Your task to perform on an android device: check battery use Image 0: 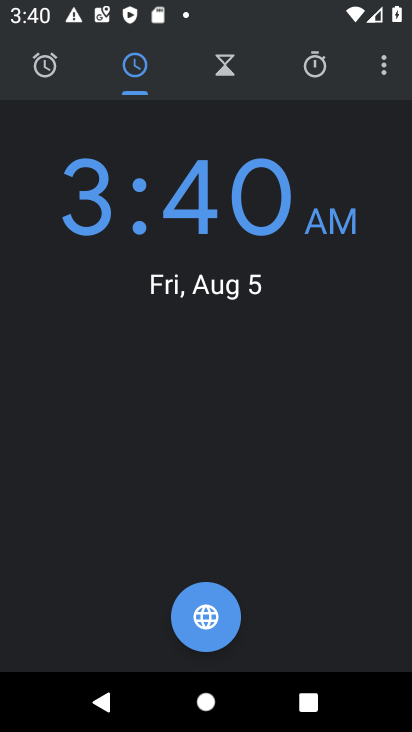
Step 0: press home button
Your task to perform on an android device: check battery use Image 1: 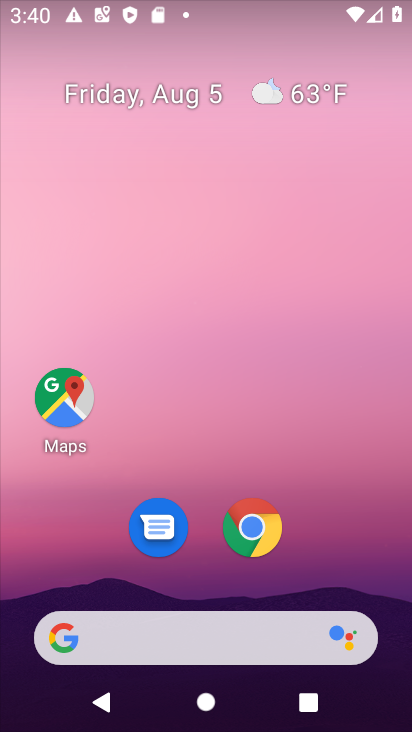
Step 1: drag from (202, 592) to (178, 190)
Your task to perform on an android device: check battery use Image 2: 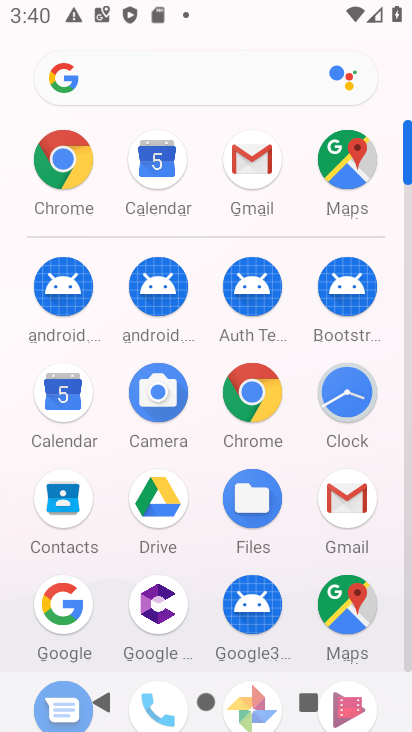
Step 2: drag from (191, 597) to (177, 351)
Your task to perform on an android device: check battery use Image 3: 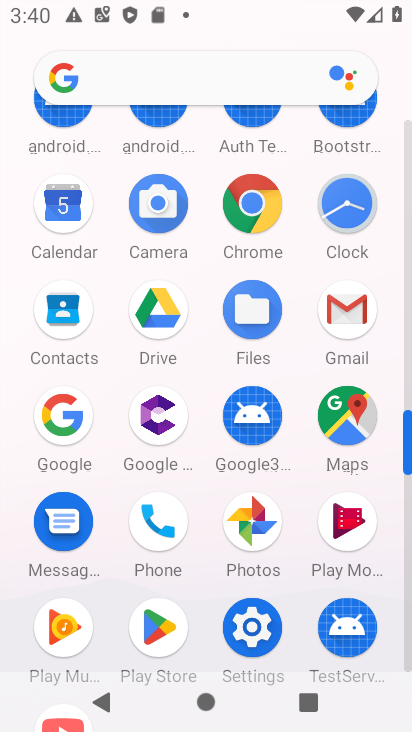
Step 3: click (250, 623)
Your task to perform on an android device: check battery use Image 4: 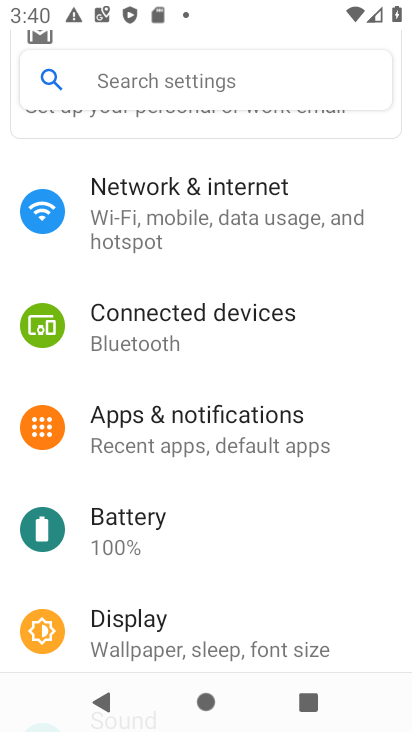
Step 4: drag from (164, 200) to (150, 327)
Your task to perform on an android device: check battery use Image 5: 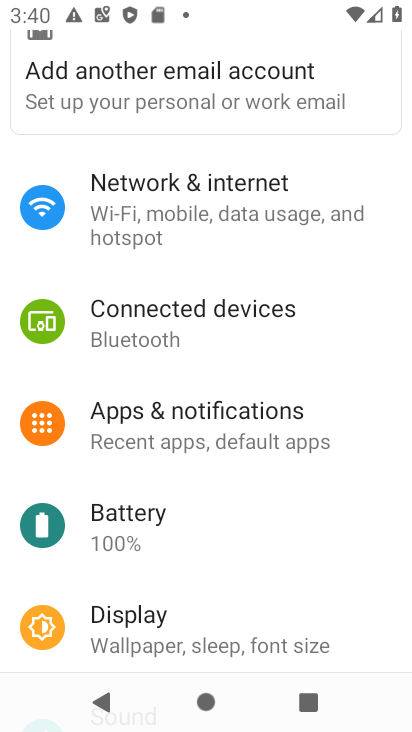
Step 5: click (122, 509)
Your task to perform on an android device: check battery use Image 6: 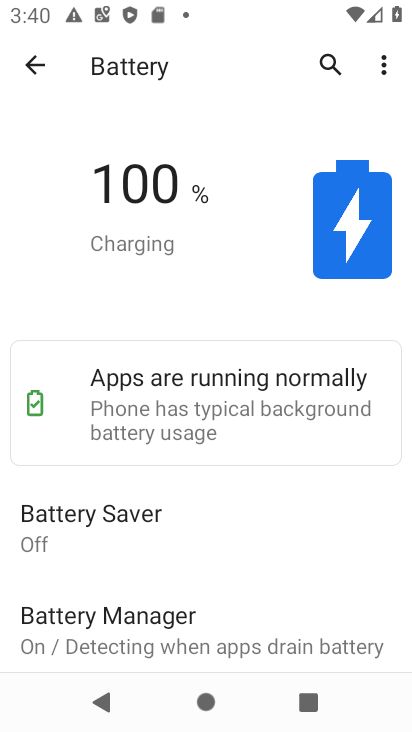
Step 6: click (381, 70)
Your task to perform on an android device: check battery use Image 7: 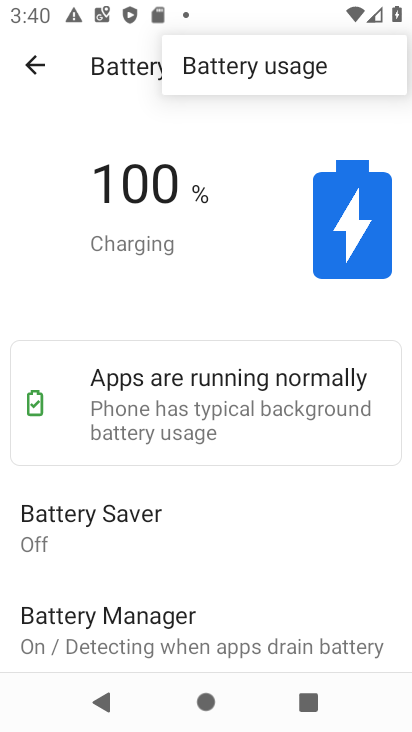
Step 7: click (261, 70)
Your task to perform on an android device: check battery use Image 8: 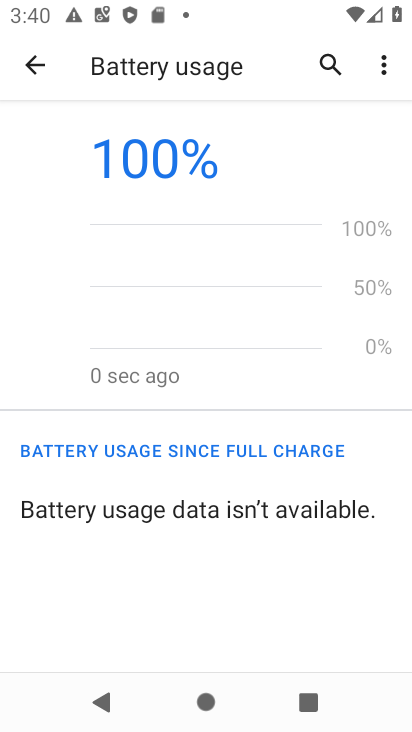
Step 8: task complete